Your task to perform on an android device: Open Youtube and go to the subscriptions tab Image 0: 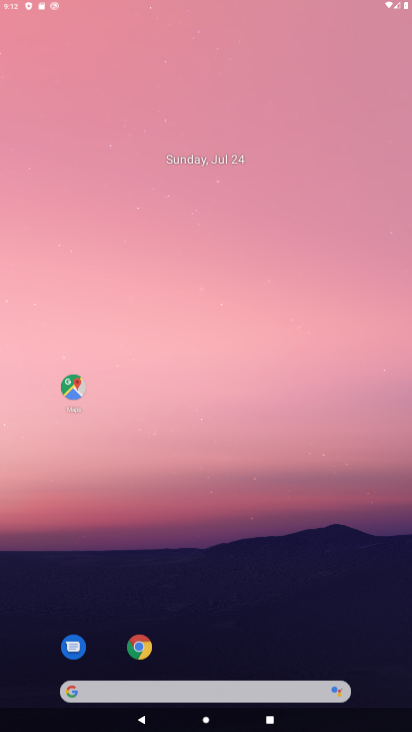
Step 0: click (252, 72)
Your task to perform on an android device: Open Youtube and go to the subscriptions tab Image 1: 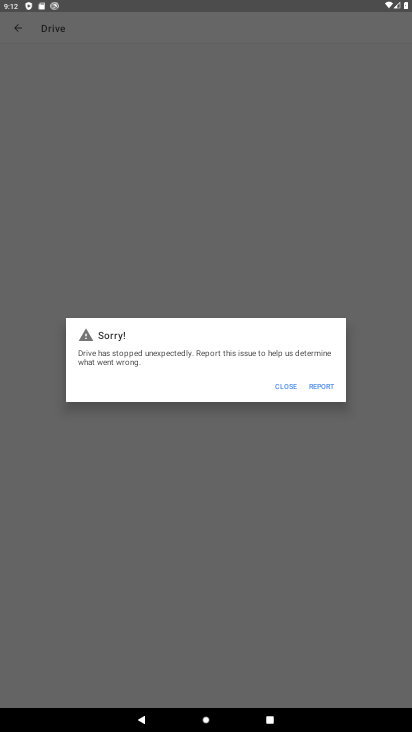
Step 1: click (283, 386)
Your task to perform on an android device: Open Youtube and go to the subscriptions tab Image 2: 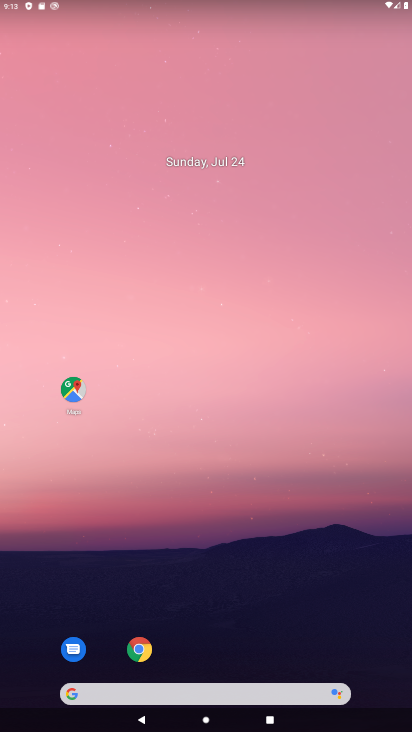
Step 2: drag from (194, 570) to (124, 144)
Your task to perform on an android device: Open Youtube and go to the subscriptions tab Image 3: 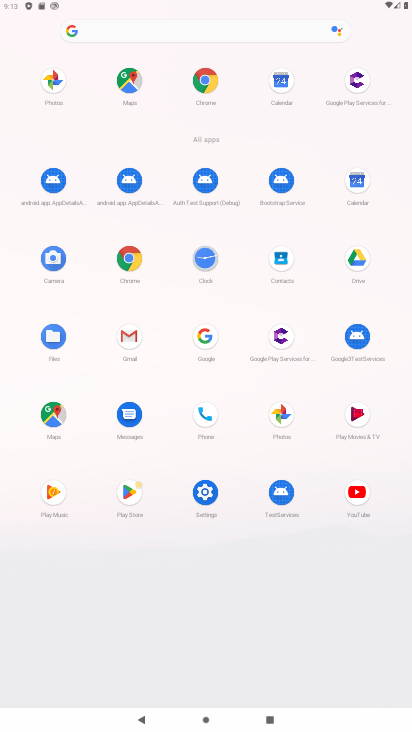
Step 3: click (365, 515)
Your task to perform on an android device: Open Youtube and go to the subscriptions tab Image 4: 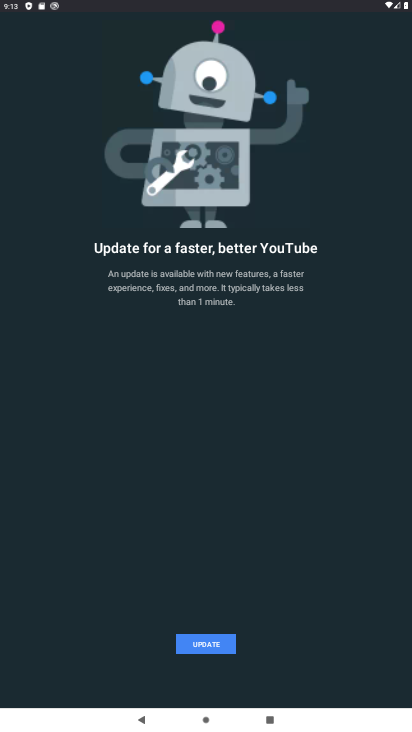
Step 4: click (193, 653)
Your task to perform on an android device: Open Youtube and go to the subscriptions tab Image 5: 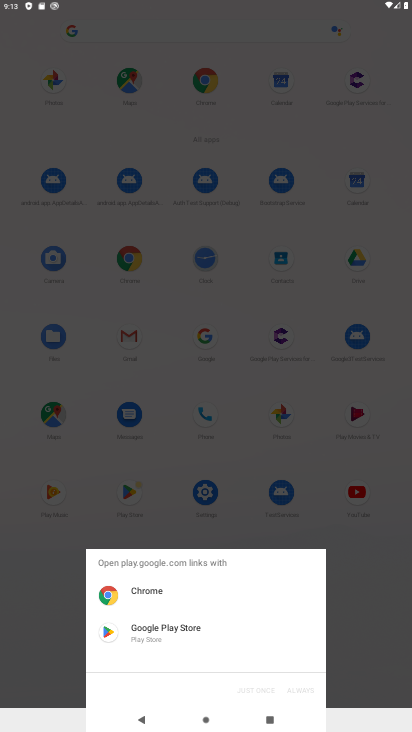
Step 5: click (150, 643)
Your task to perform on an android device: Open Youtube and go to the subscriptions tab Image 6: 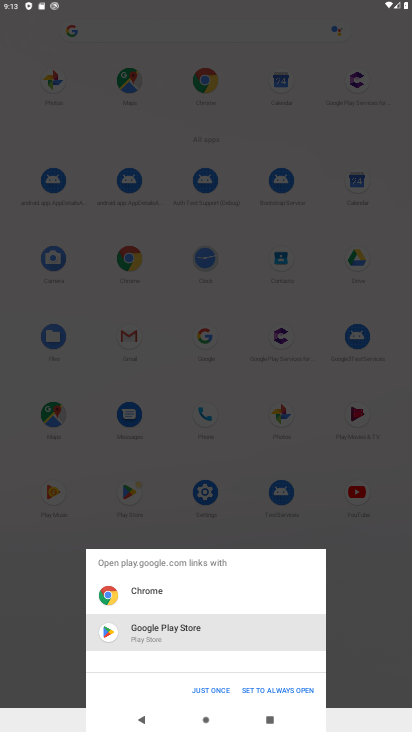
Step 6: click (241, 685)
Your task to perform on an android device: Open Youtube and go to the subscriptions tab Image 7: 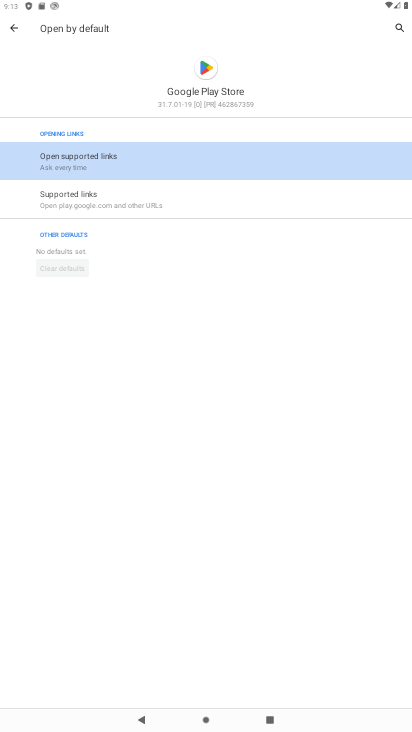
Step 7: click (68, 157)
Your task to perform on an android device: Open Youtube and go to the subscriptions tab Image 8: 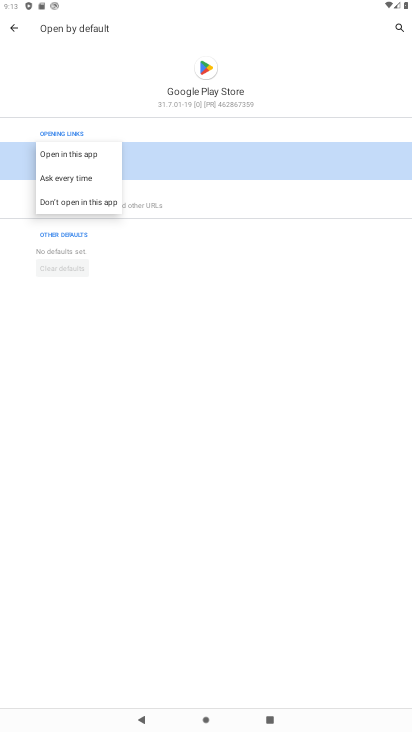
Step 8: click (58, 149)
Your task to perform on an android device: Open Youtube and go to the subscriptions tab Image 9: 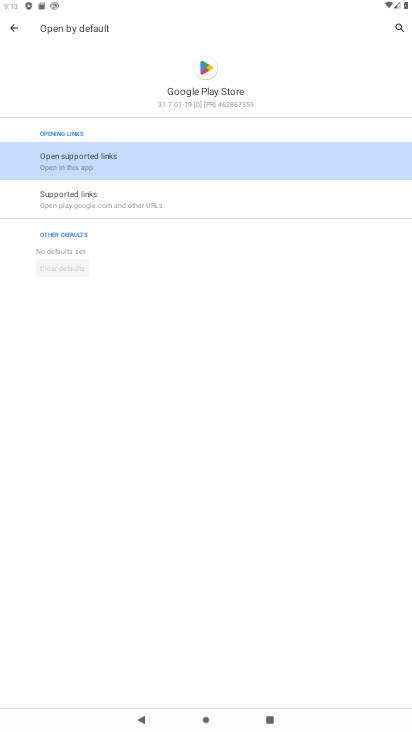
Step 9: click (11, 27)
Your task to perform on an android device: Open Youtube and go to the subscriptions tab Image 10: 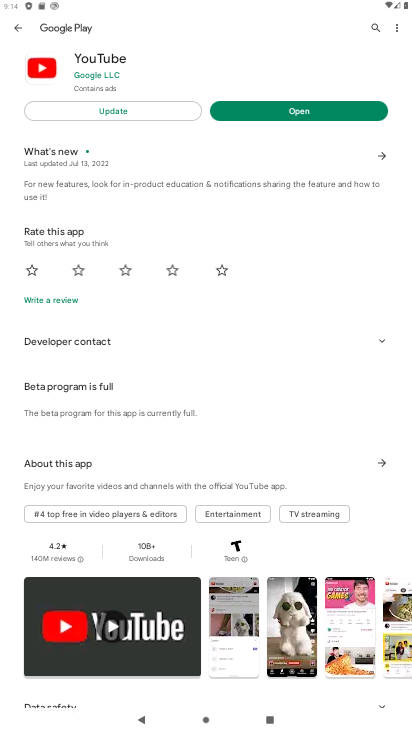
Step 10: click (294, 106)
Your task to perform on an android device: Open Youtube and go to the subscriptions tab Image 11: 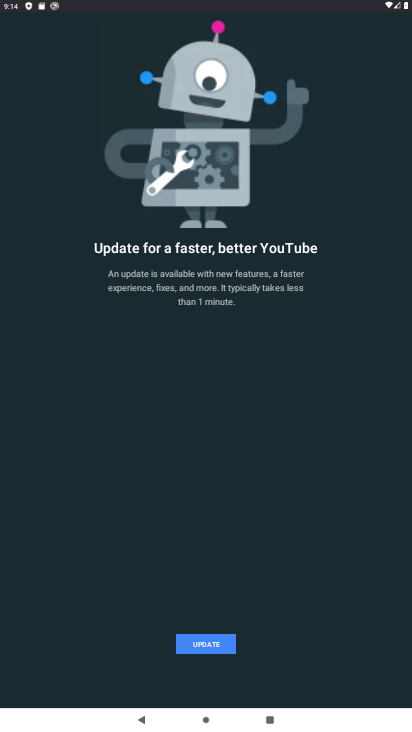
Step 11: click (219, 643)
Your task to perform on an android device: Open Youtube and go to the subscriptions tab Image 12: 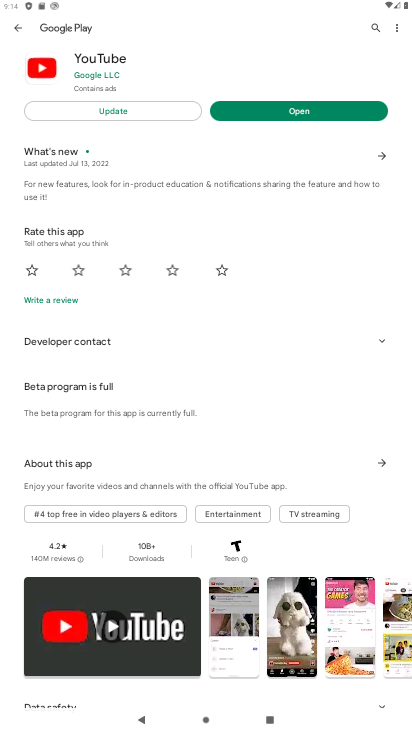
Step 12: click (97, 108)
Your task to perform on an android device: Open Youtube and go to the subscriptions tab Image 13: 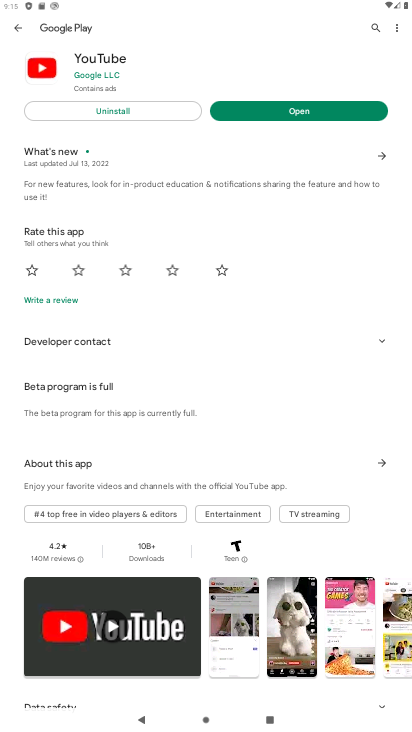
Step 13: click (322, 104)
Your task to perform on an android device: Open Youtube and go to the subscriptions tab Image 14: 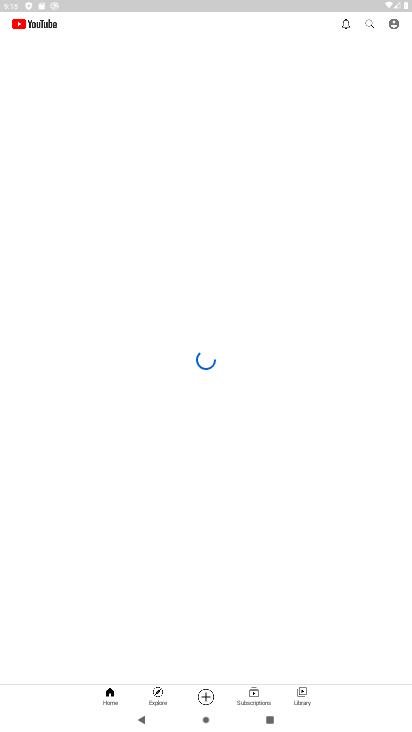
Step 14: click (253, 694)
Your task to perform on an android device: Open Youtube and go to the subscriptions tab Image 15: 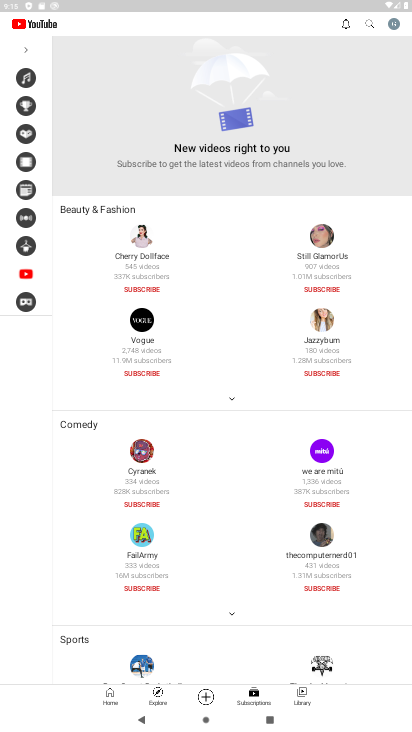
Step 15: task complete